Your task to perform on an android device: Go to Reddit.com Image 0: 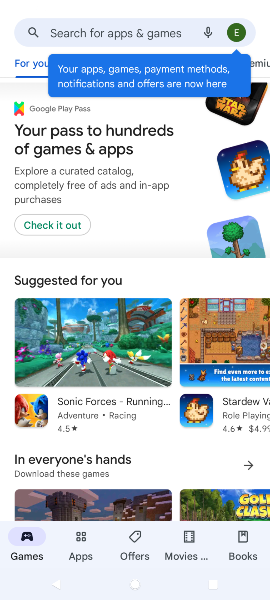
Step 0: press home button
Your task to perform on an android device: Go to Reddit.com Image 1: 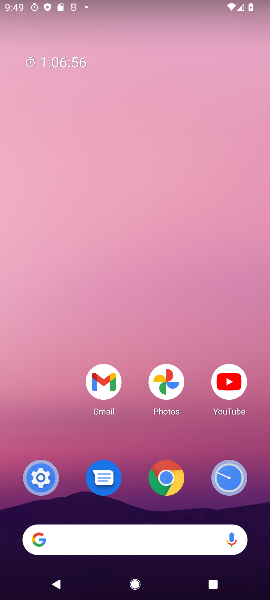
Step 1: click (165, 482)
Your task to perform on an android device: Go to Reddit.com Image 2: 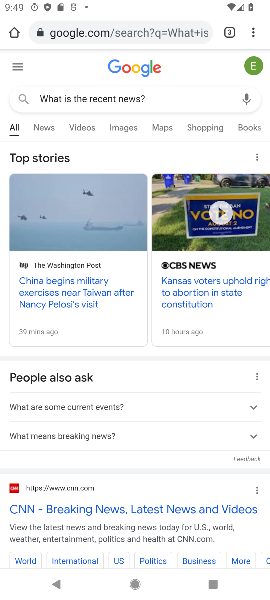
Step 2: click (169, 35)
Your task to perform on an android device: Go to Reddit.com Image 3: 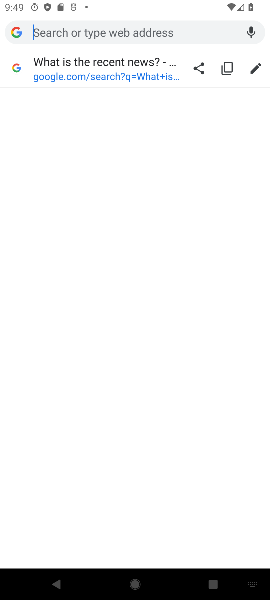
Step 3: type "Reddit.com"
Your task to perform on an android device: Go to Reddit.com Image 4: 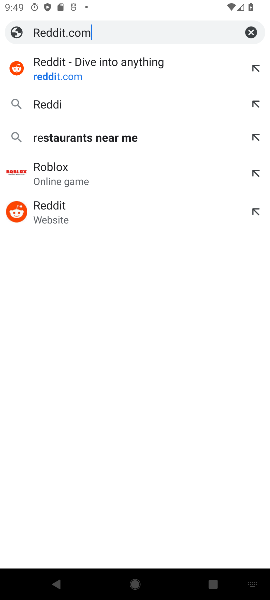
Step 4: type ""
Your task to perform on an android device: Go to Reddit.com Image 5: 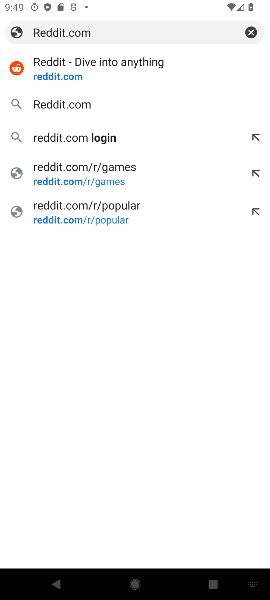
Step 5: click (65, 69)
Your task to perform on an android device: Go to Reddit.com Image 6: 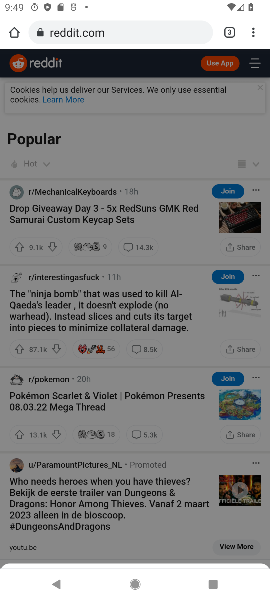
Step 6: task complete